Your task to perform on an android device: set the stopwatch Image 0: 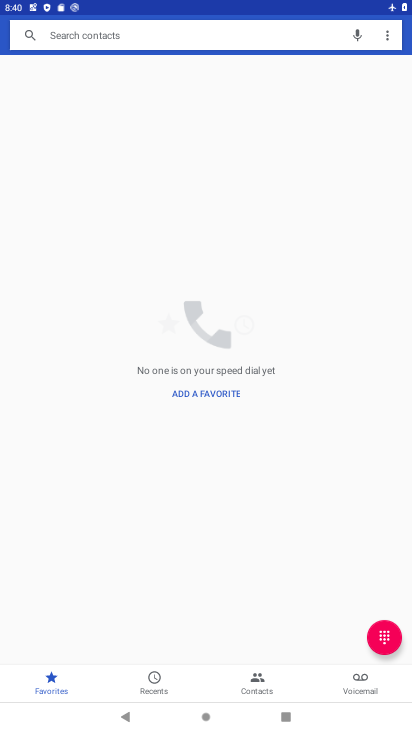
Step 0: press home button
Your task to perform on an android device: set the stopwatch Image 1: 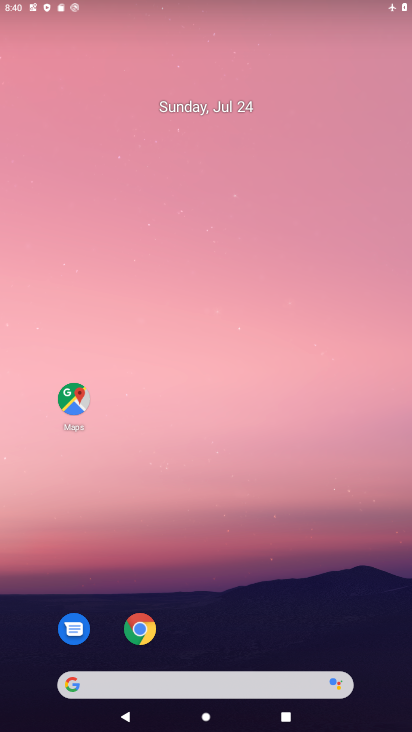
Step 1: drag from (203, 721) to (188, 217)
Your task to perform on an android device: set the stopwatch Image 2: 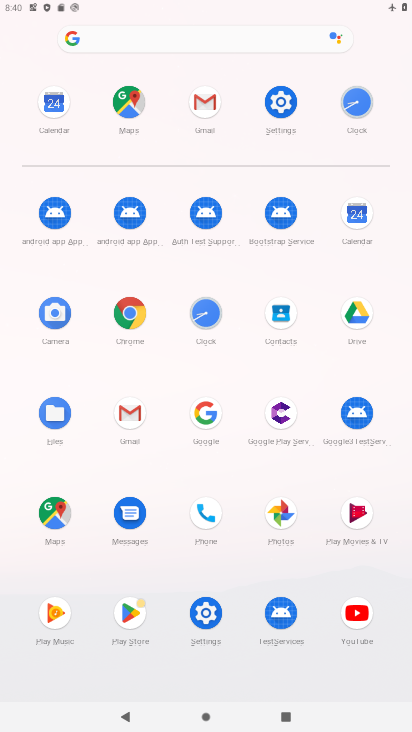
Step 2: click (360, 105)
Your task to perform on an android device: set the stopwatch Image 3: 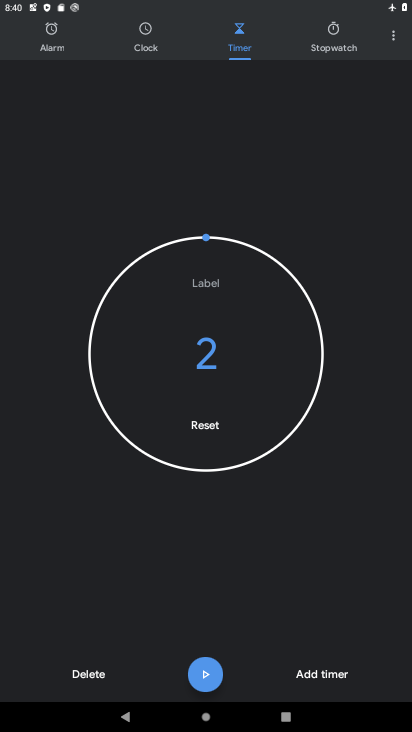
Step 3: click (336, 41)
Your task to perform on an android device: set the stopwatch Image 4: 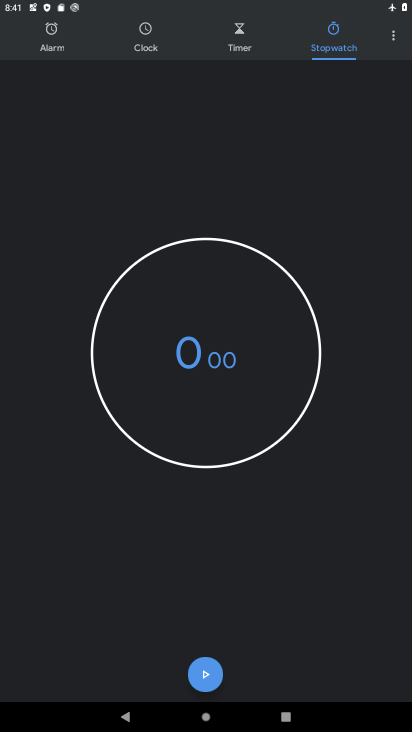
Step 4: click (192, 682)
Your task to perform on an android device: set the stopwatch Image 5: 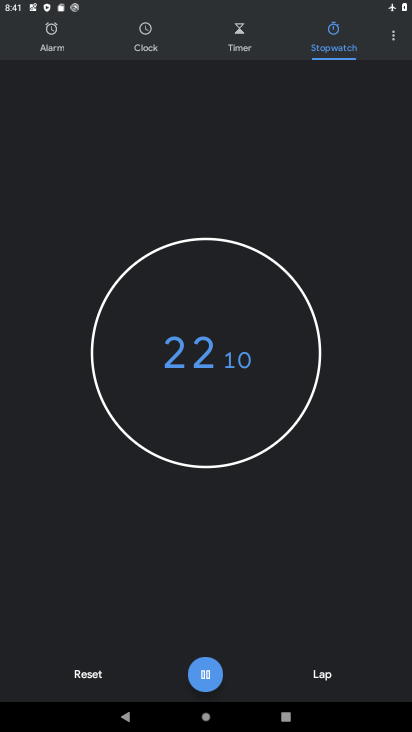
Step 5: task complete